Your task to perform on an android device: turn on priority inbox in the gmail app Image 0: 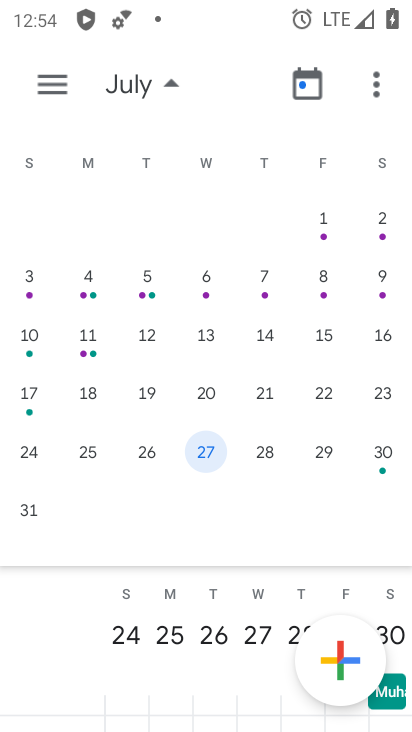
Step 0: press home button
Your task to perform on an android device: turn on priority inbox in the gmail app Image 1: 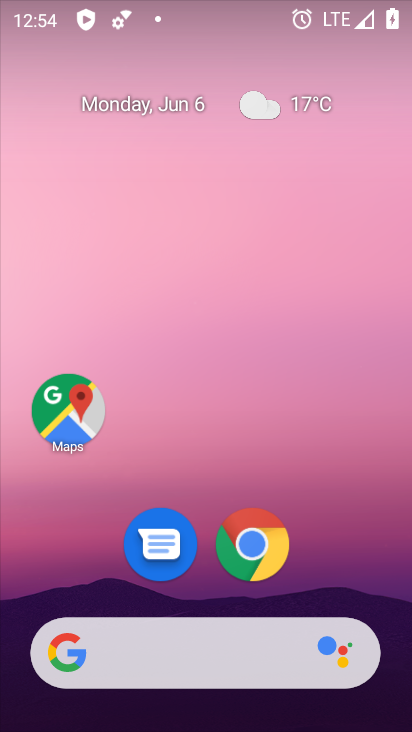
Step 1: drag from (389, 585) to (176, 61)
Your task to perform on an android device: turn on priority inbox in the gmail app Image 2: 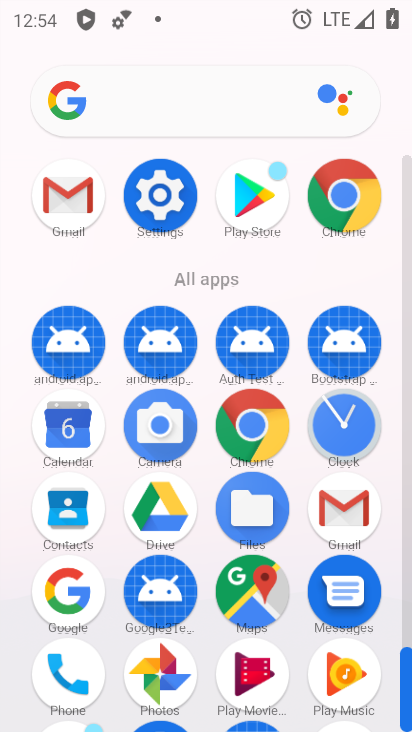
Step 2: click (76, 212)
Your task to perform on an android device: turn on priority inbox in the gmail app Image 3: 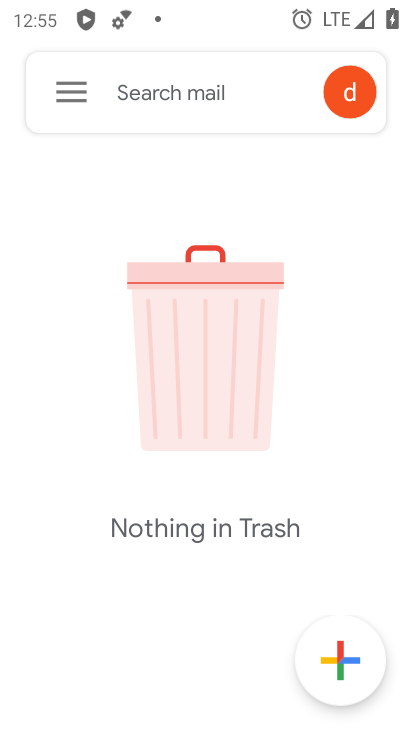
Step 3: click (67, 89)
Your task to perform on an android device: turn on priority inbox in the gmail app Image 4: 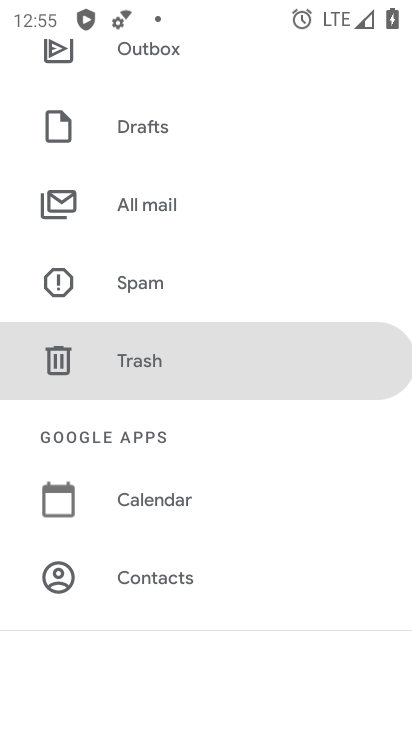
Step 4: drag from (181, 161) to (205, 656)
Your task to perform on an android device: turn on priority inbox in the gmail app Image 5: 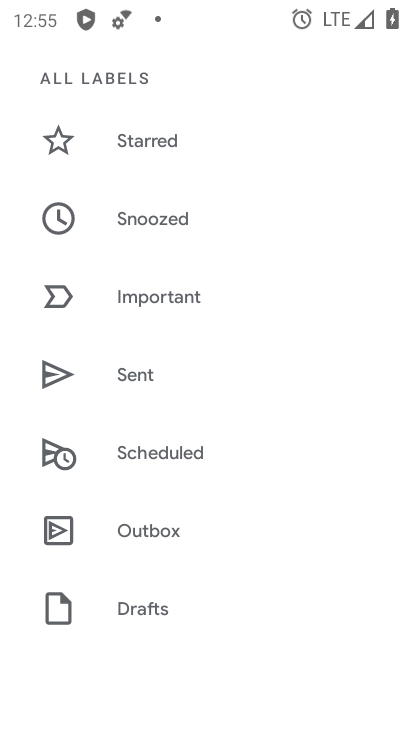
Step 5: drag from (155, 181) to (189, 663)
Your task to perform on an android device: turn on priority inbox in the gmail app Image 6: 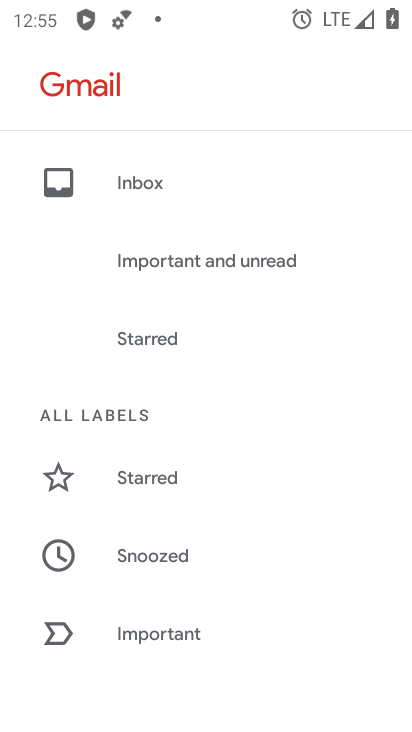
Step 6: drag from (155, 601) to (144, 148)
Your task to perform on an android device: turn on priority inbox in the gmail app Image 7: 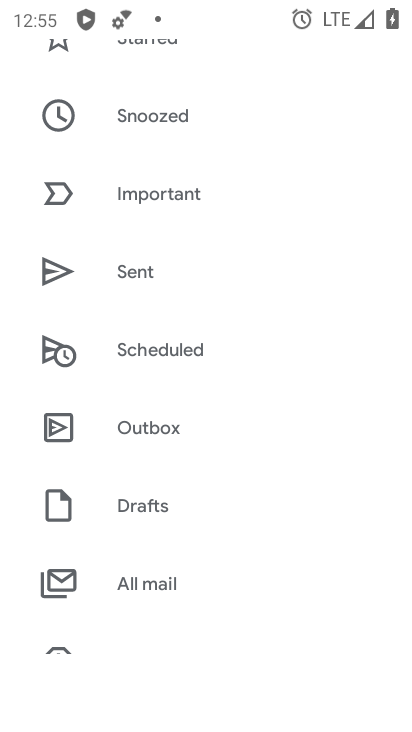
Step 7: drag from (206, 614) to (164, 223)
Your task to perform on an android device: turn on priority inbox in the gmail app Image 8: 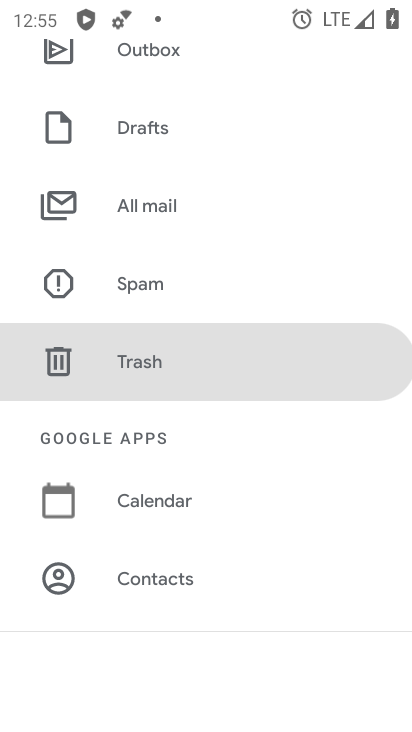
Step 8: drag from (202, 573) to (171, 192)
Your task to perform on an android device: turn on priority inbox in the gmail app Image 9: 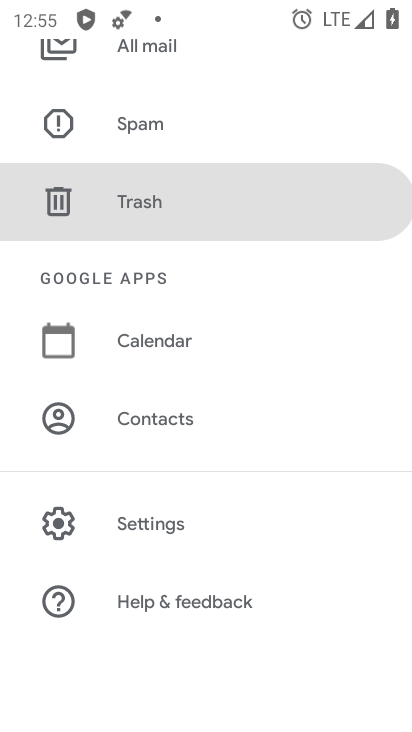
Step 9: click (188, 508)
Your task to perform on an android device: turn on priority inbox in the gmail app Image 10: 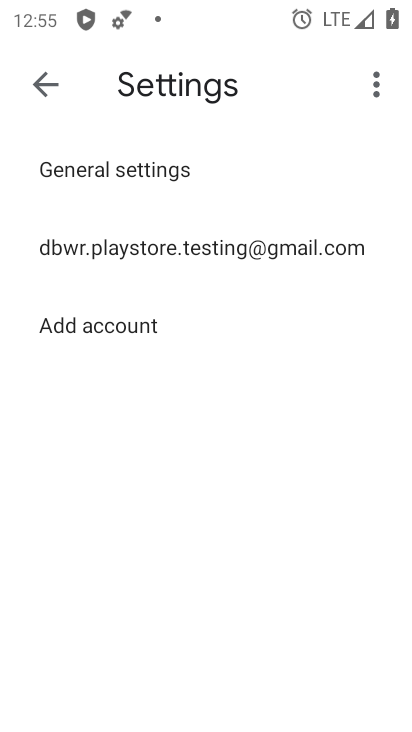
Step 10: click (179, 255)
Your task to perform on an android device: turn on priority inbox in the gmail app Image 11: 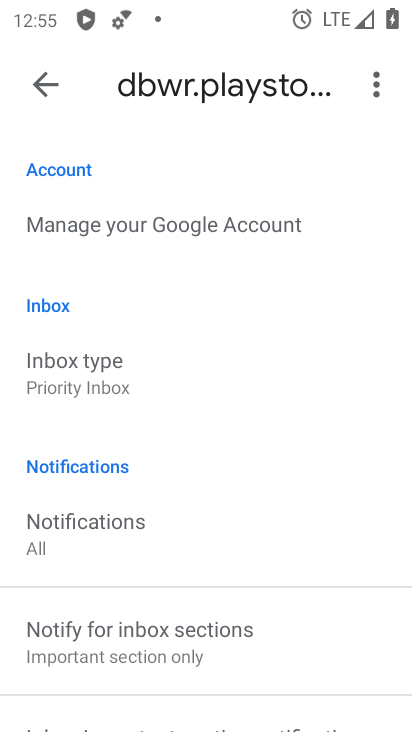
Step 11: click (218, 401)
Your task to perform on an android device: turn on priority inbox in the gmail app Image 12: 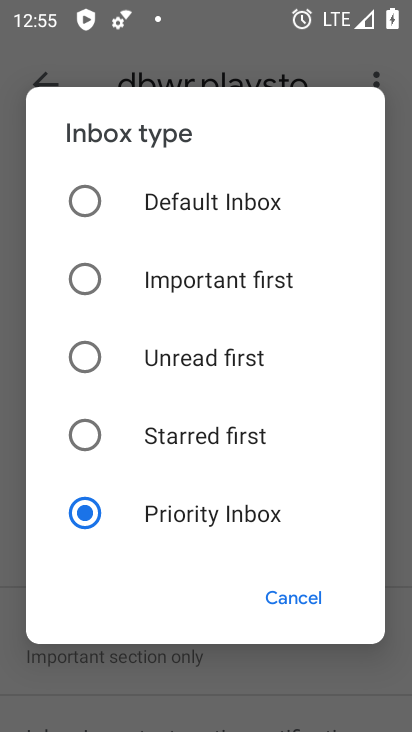
Step 12: task complete